Your task to perform on an android device: open app "Chime – Mobile Banking" Image 0: 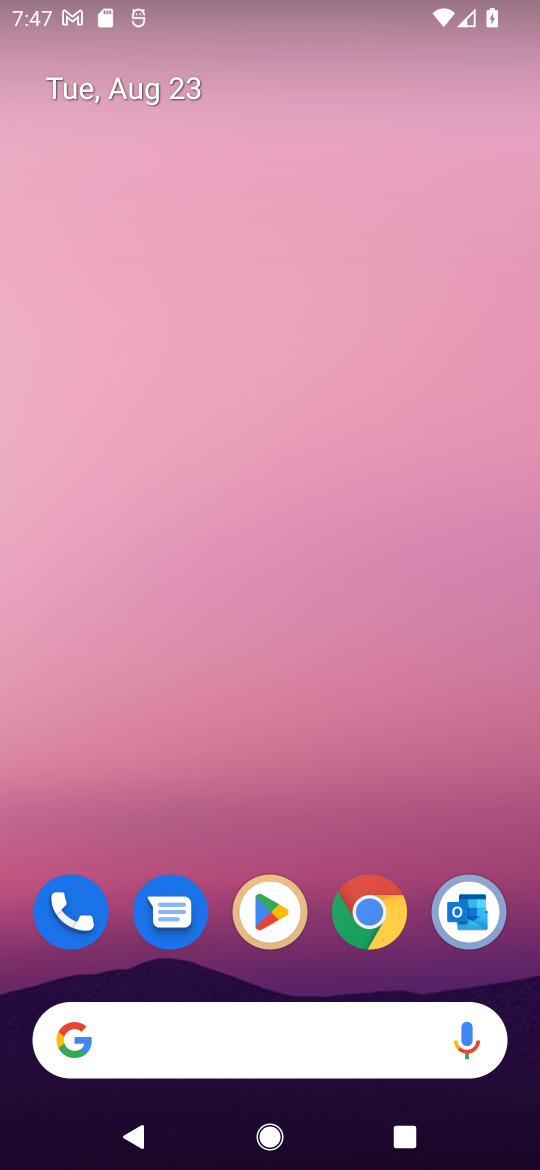
Step 0: click (271, 915)
Your task to perform on an android device: open app "Chime – Mobile Banking" Image 1: 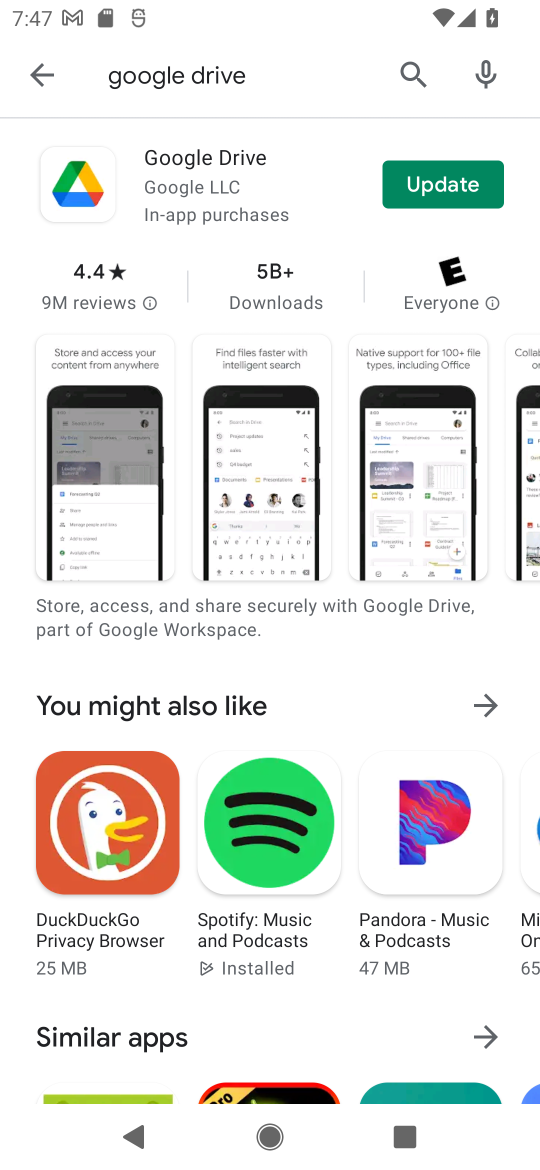
Step 1: click (410, 73)
Your task to perform on an android device: open app "Chime – Mobile Banking" Image 2: 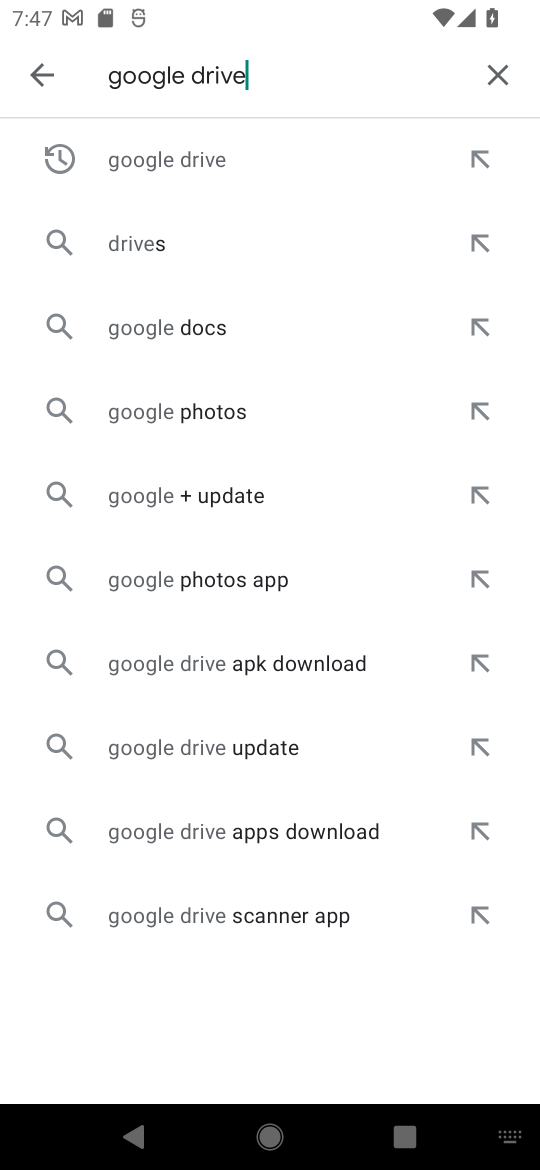
Step 2: click (488, 67)
Your task to perform on an android device: open app "Chime – Mobile Banking" Image 3: 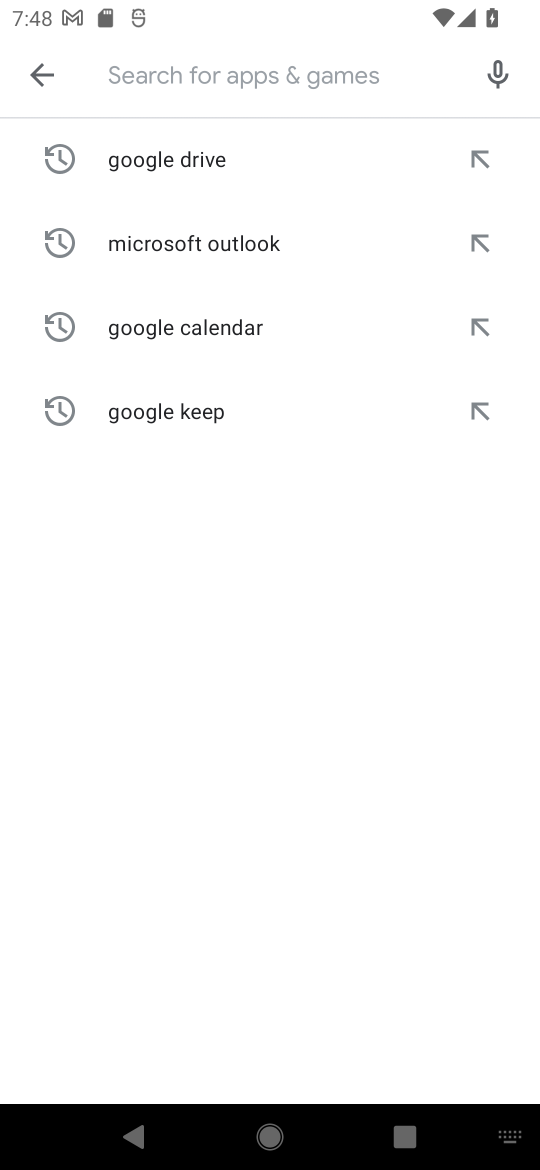
Step 3: type "Chime – Mobile Banking"
Your task to perform on an android device: open app "Chime – Mobile Banking" Image 4: 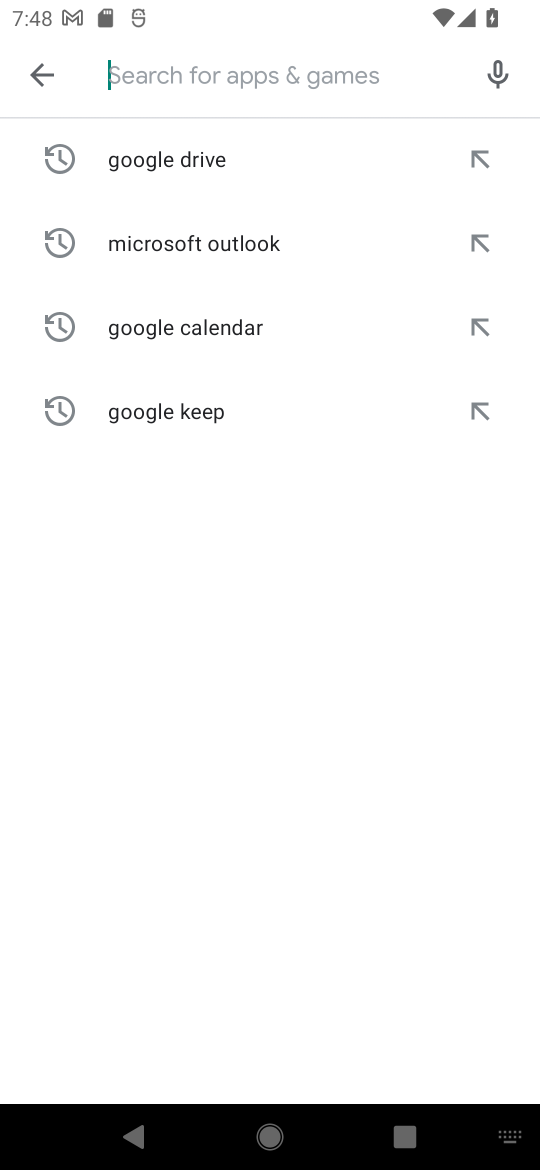
Step 4: type ""
Your task to perform on an android device: open app "Chime – Mobile Banking" Image 5: 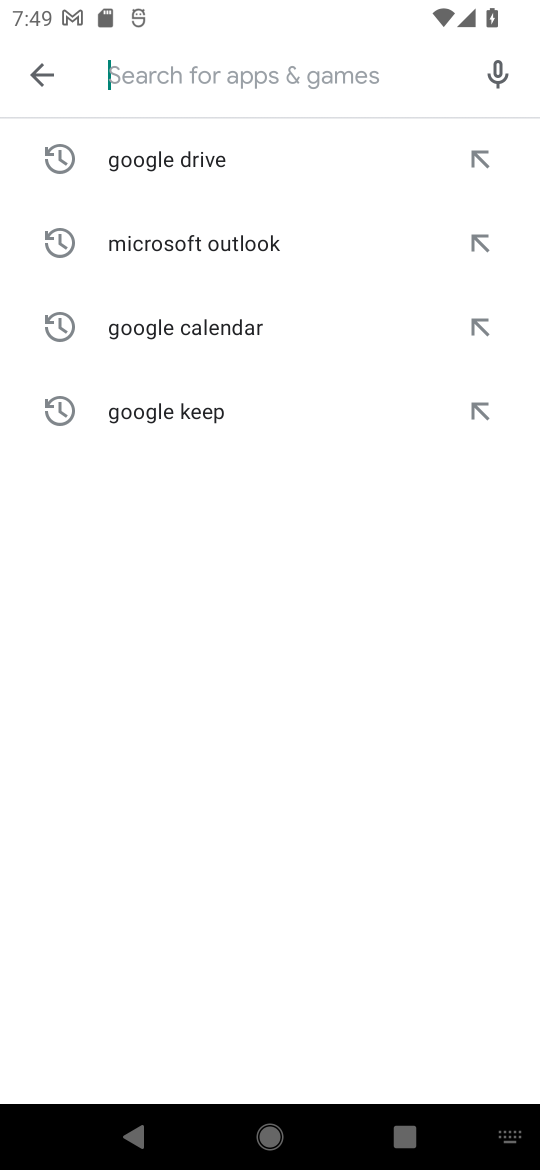
Step 5: type "Chime - Mobile Banking"
Your task to perform on an android device: open app "Chime – Mobile Banking" Image 6: 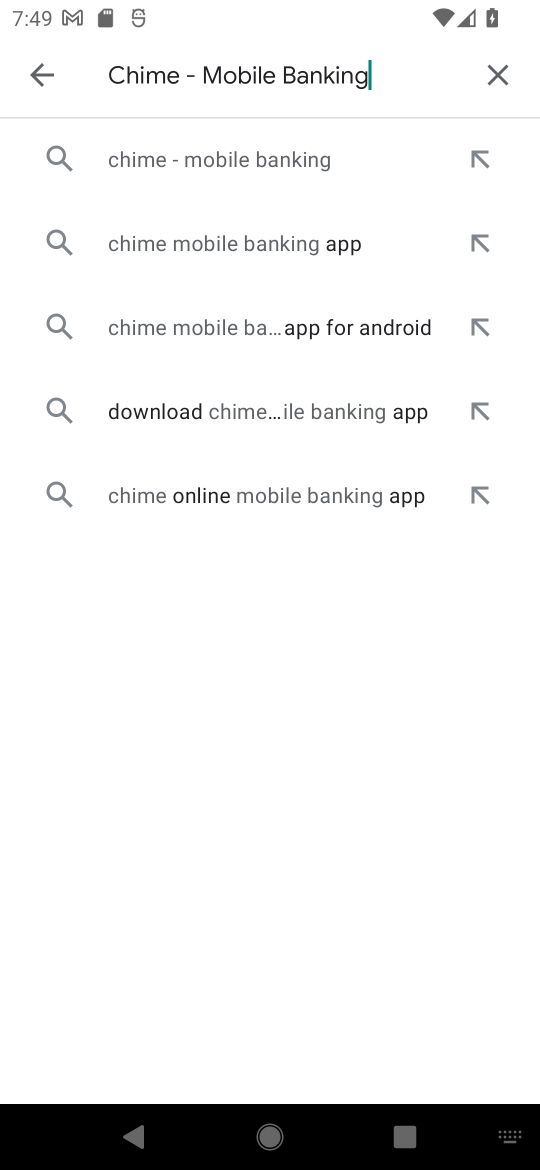
Step 6: click (189, 154)
Your task to perform on an android device: open app "Chime – Mobile Banking" Image 7: 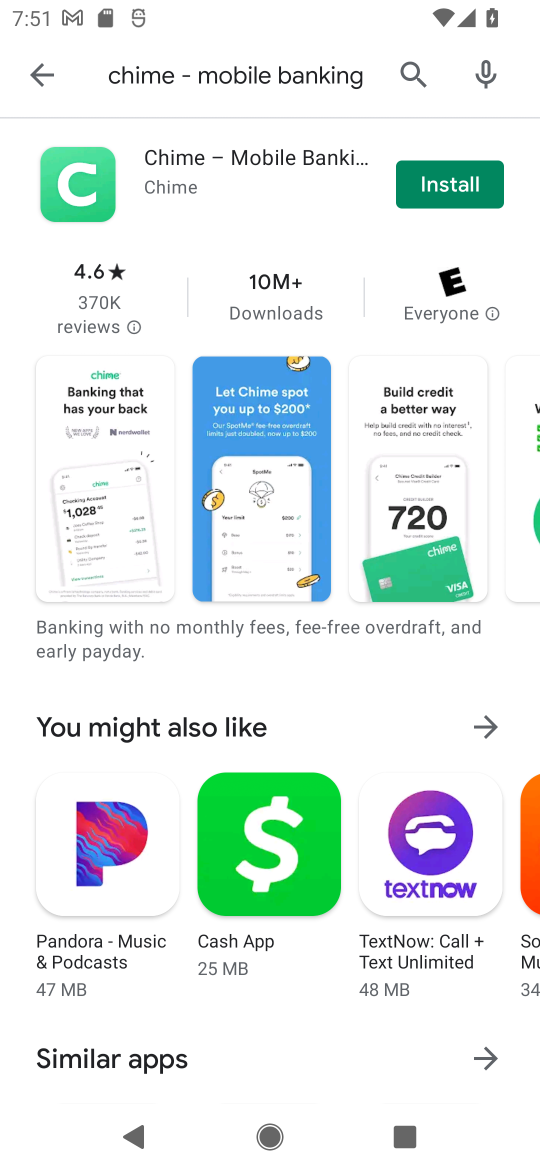
Step 7: task complete